Your task to perform on an android device: delete location history Image 0: 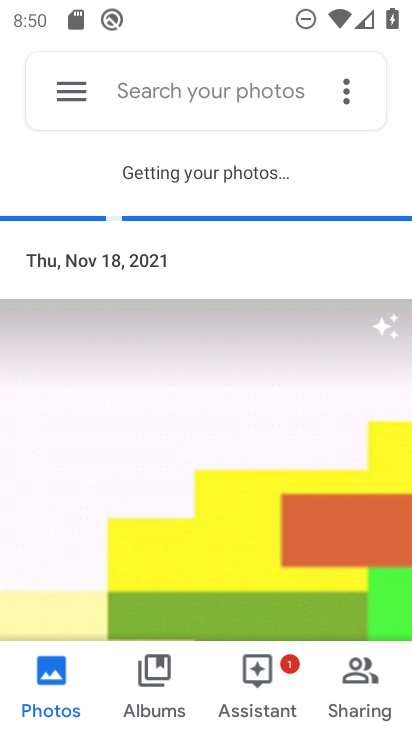
Step 0: press home button
Your task to perform on an android device: delete location history Image 1: 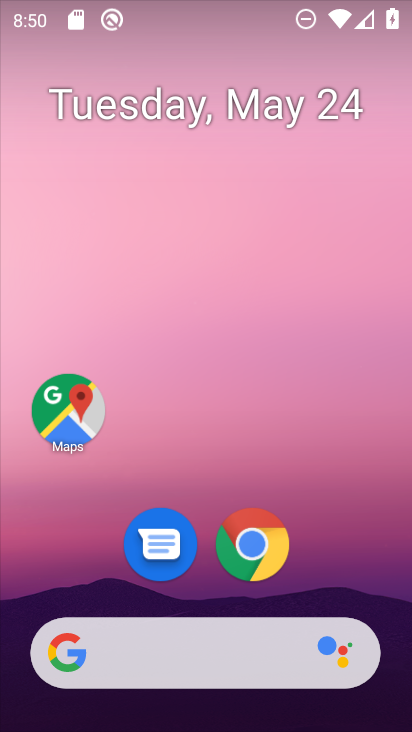
Step 1: click (85, 404)
Your task to perform on an android device: delete location history Image 2: 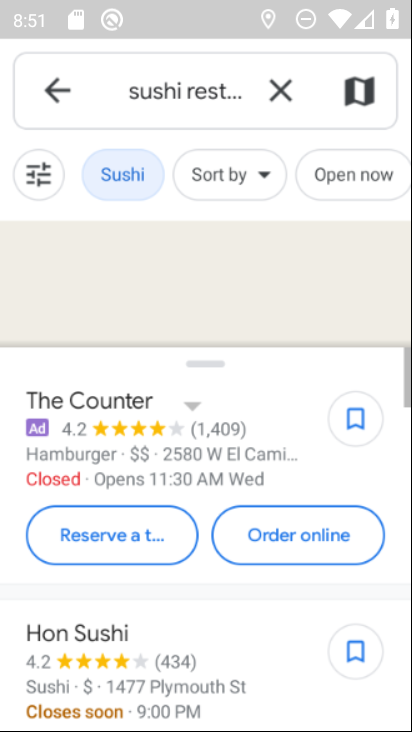
Step 2: click (70, 87)
Your task to perform on an android device: delete location history Image 3: 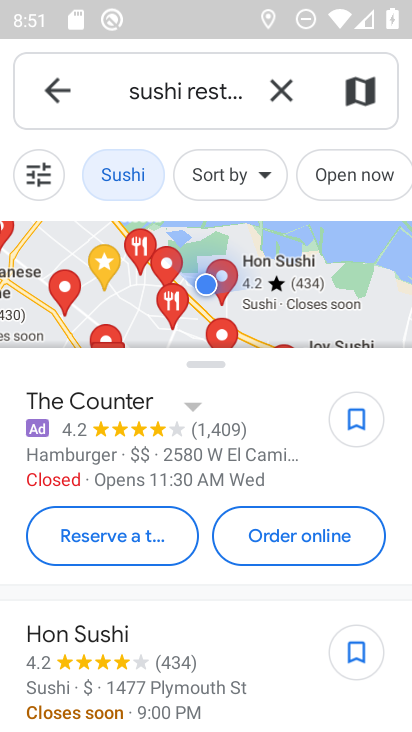
Step 3: click (70, 87)
Your task to perform on an android device: delete location history Image 4: 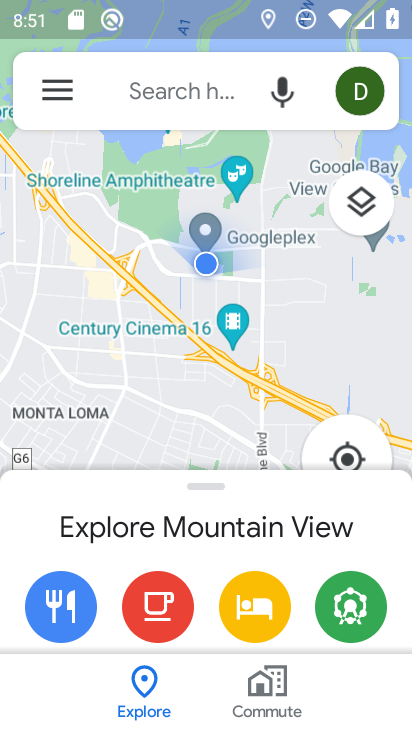
Step 4: click (70, 87)
Your task to perform on an android device: delete location history Image 5: 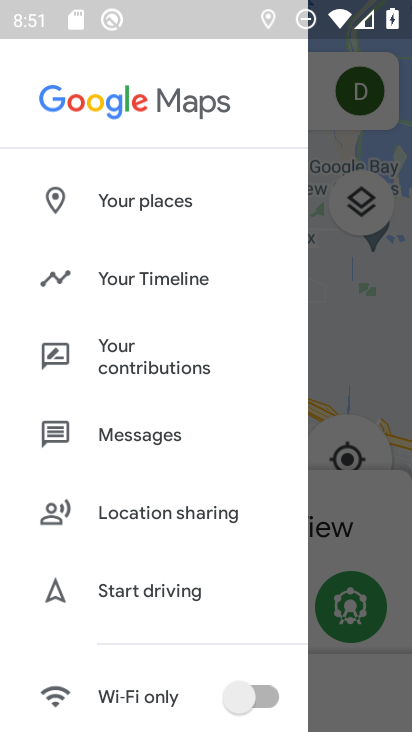
Step 5: click (199, 278)
Your task to perform on an android device: delete location history Image 6: 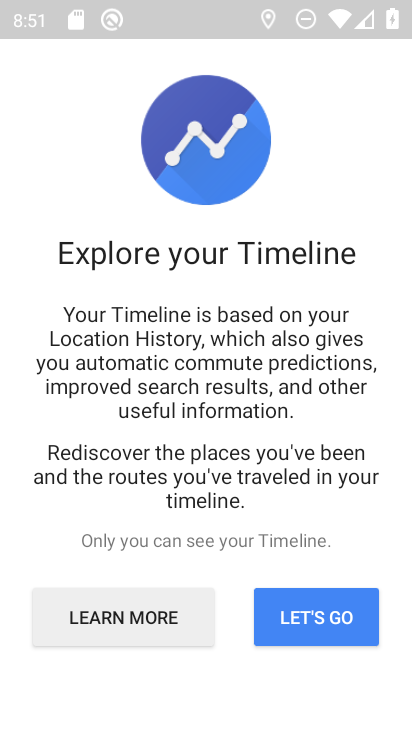
Step 6: click (314, 625)
Your task to perform on an android device: delete location history Image 7: 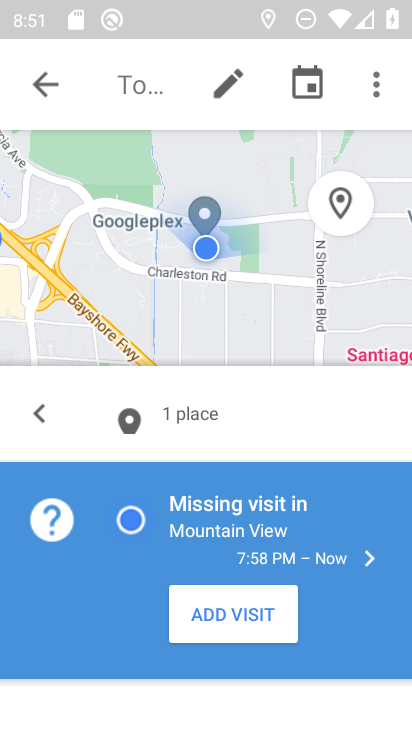
Step 7: click (382, 94)
Your task to perform on an android device: delete location history Image 8: 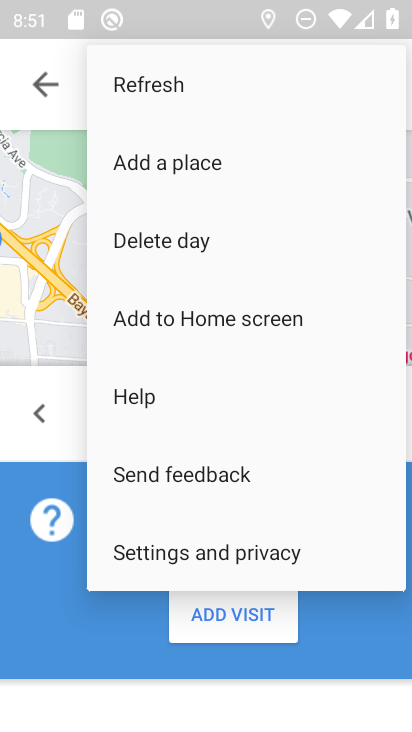
Step 8: click (236, 564)
Your task to perform on an android device: delete location history Image 9: 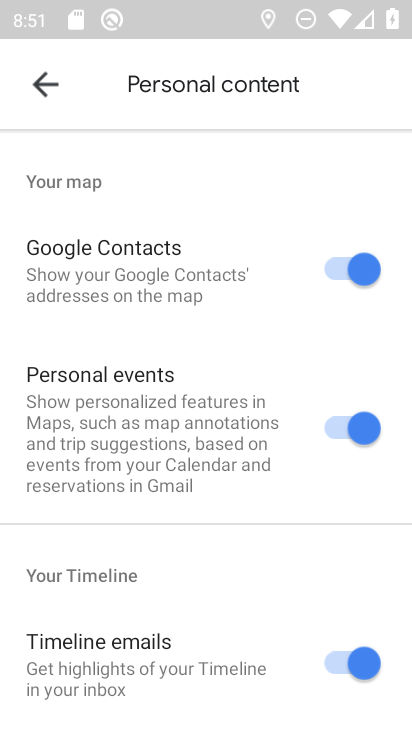
Step 9: drag from (233, 645) to (157, 144)
Your task to perform on an android device: delete location history Image 10: 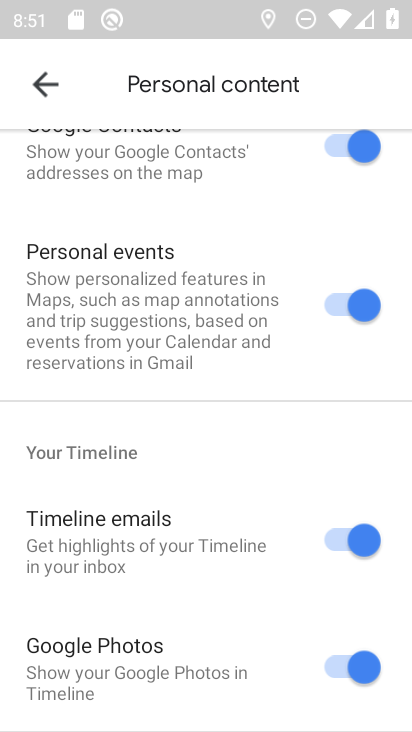
Step 10: drag from (118, 695) to (97, 220)
Your task to perform on an android device: delete location history Image 11: 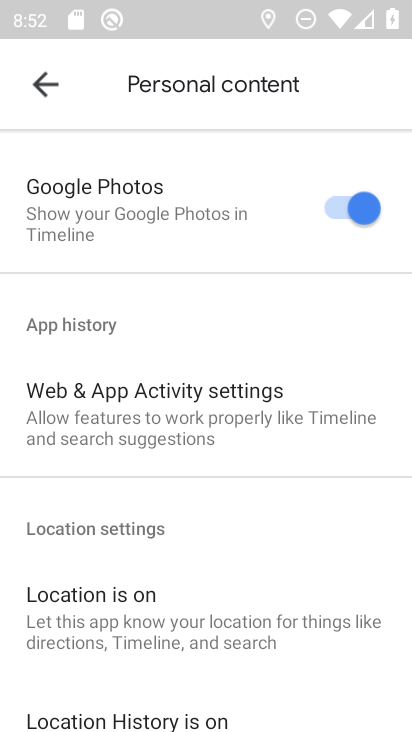
Step 11: drag from (181, 670) to (129, 191)
Your task to perform on an android device: delete location history Image 12: 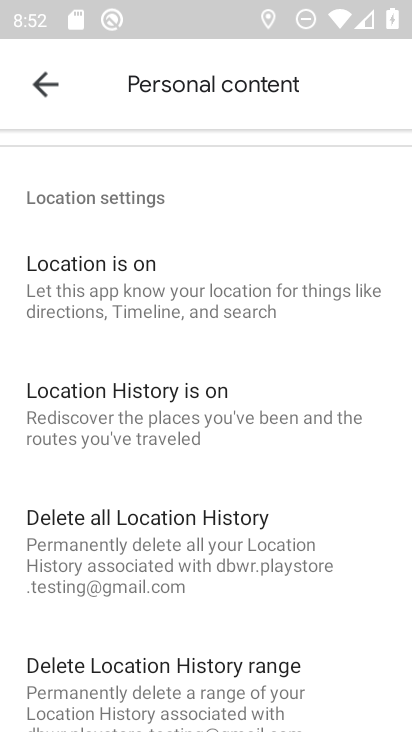
Step 12: click (182, 576)
Your task to perform on an android device: delete location history Image 13: 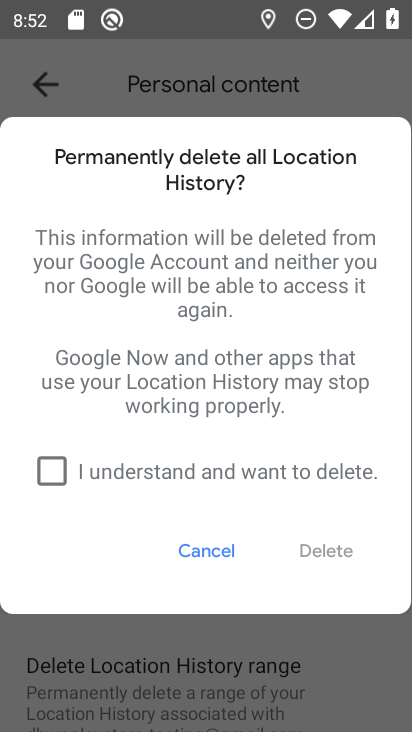
Step 13: click (192, 487)
Your task to perform on an android device: delete location history Image 14: 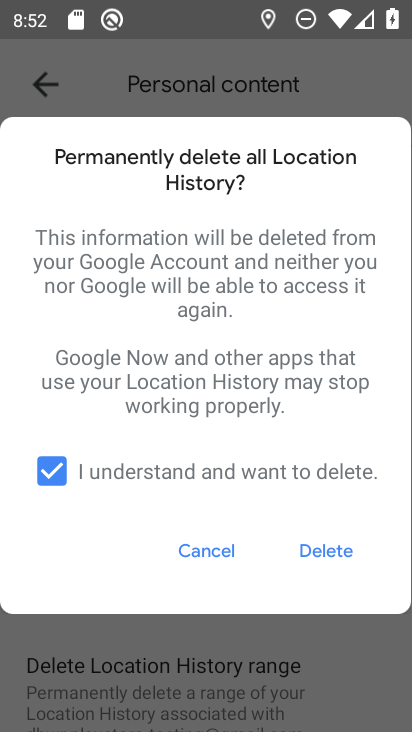
Step 14: click (331, 550)
Your task to perform on an android device: delete location history Image 15: 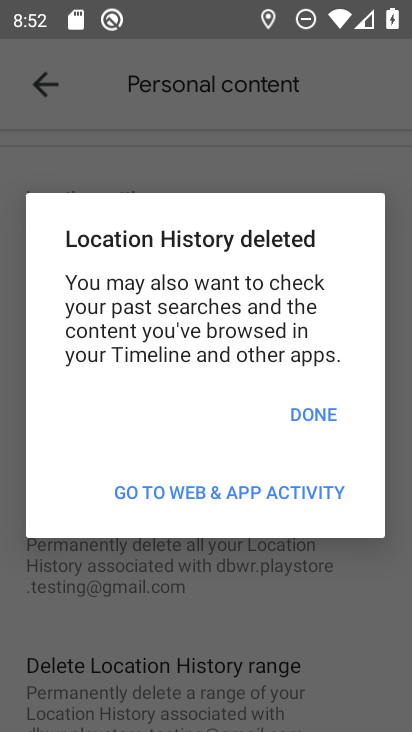
Step 15: click (315, 408)
Your task to perform on an android device: delete location history Image 16: 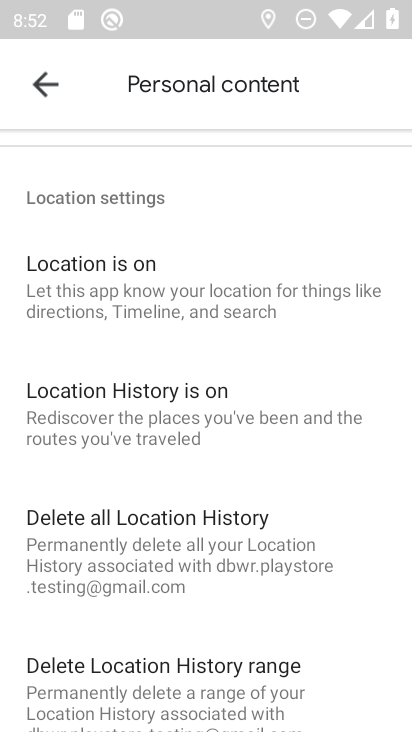
Step 16: task complete